Your task to perform on an android device: Open the phone app and click the voicemail tab. Image 0: 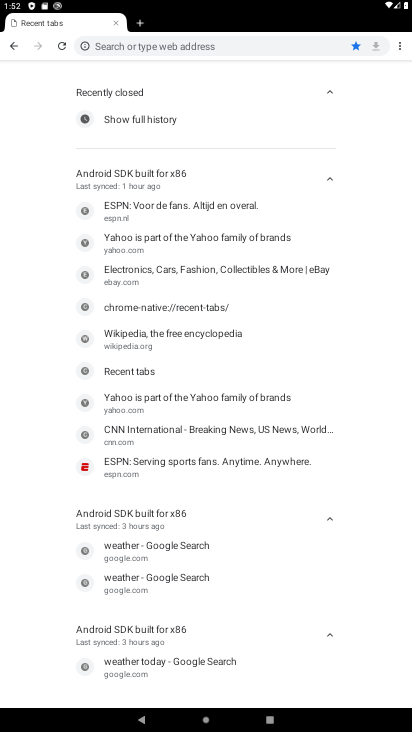
Step 0: press home button
Your task to perform on an android device: Open the phone app and click the voicemail tab. Image 1: 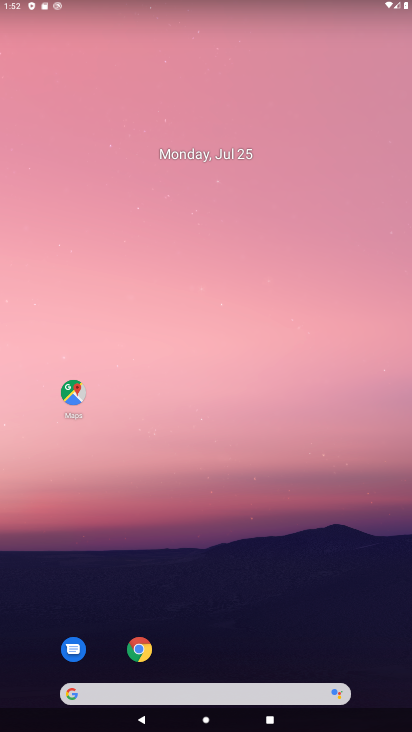
Step 1: drag from (178, 695) to (187, 1)
Your task to perform on an android device: Open the phone app and click the voicemail tab. Image 2: 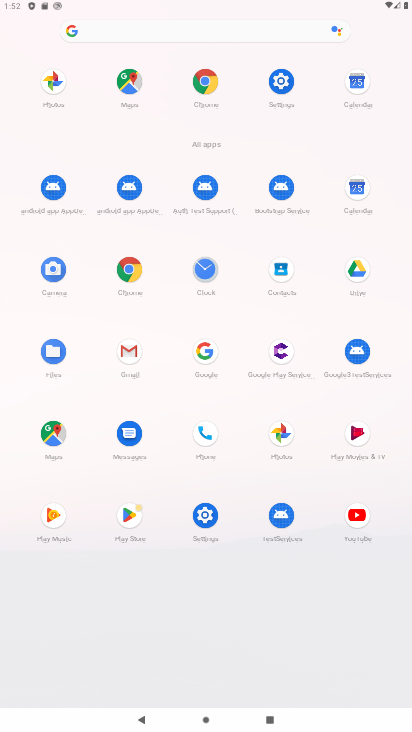
Step 2: click (196, 425)
Your task to perform on an android device: Open the phone app and click the voicemail tab. Image 3: 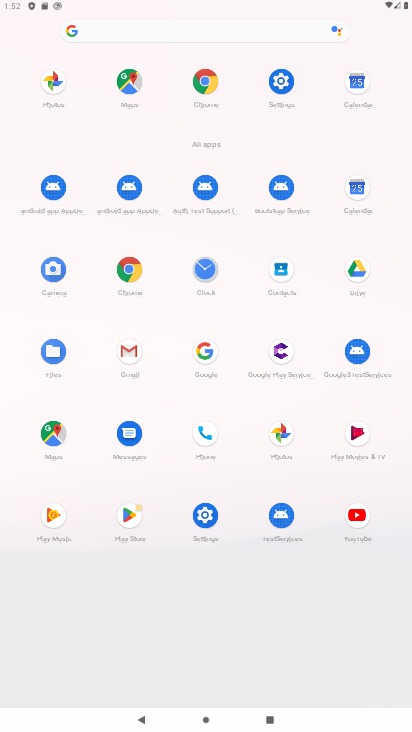
Step 3: click (196, 425)
Your task to perform on an android device: Open the phone app and click the voicemail tab. Image 4: 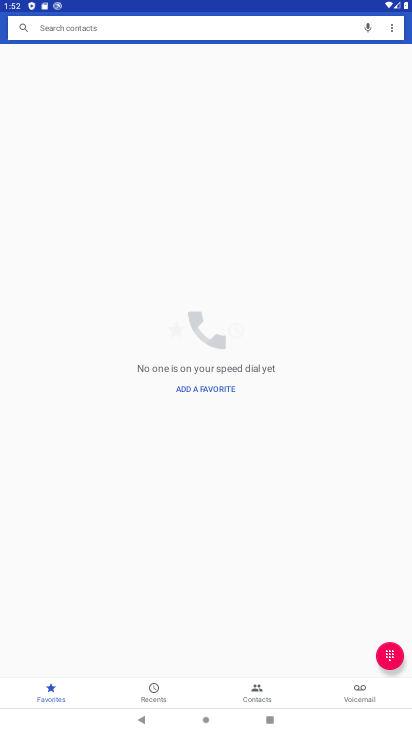
Step 4: click (363, 696)
Your task to perform on an android device: Open the phone app and click the voicemail tab. Image 5: 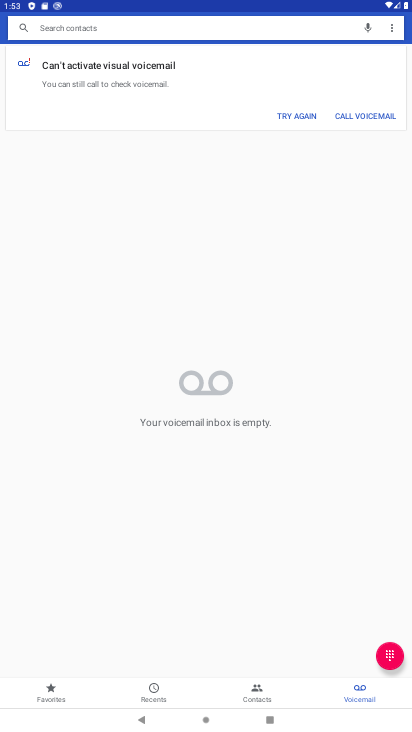
Step 5: task complete